Your task to perform on an android device: Clear the shopping cart on target.com. Add macbook pro 13 inch to the cart on target.com Image 0: 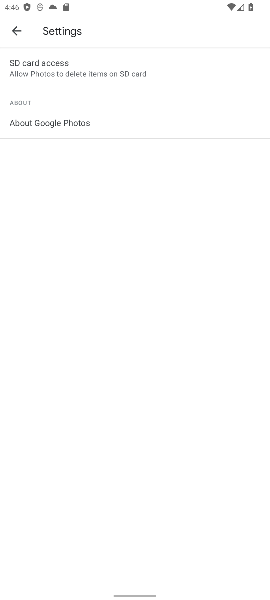
Step 0: press home button
Your task to perform on an android device: Clear the shopping cart on target.com. Add macbook pro 13 inch to the cart on target.com Image 1: 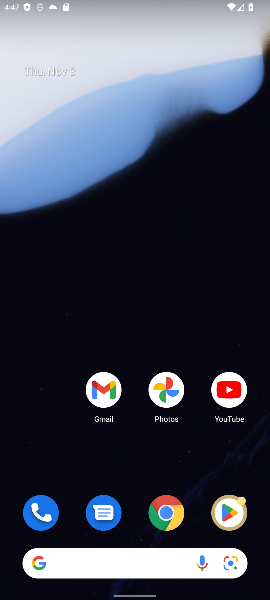
Step 1: click (163, 510)
Your task to perform on an android device: Clear the shopping cart on target.com. Add macbook pro 13 inch to the cart on target.com Image 2: 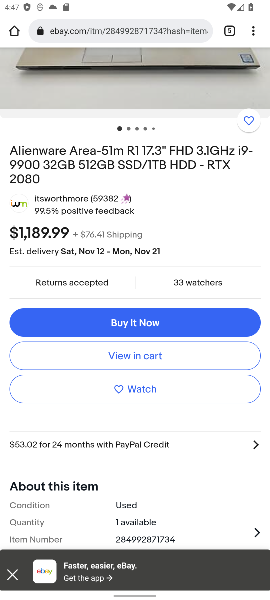
Step 2: click (230, 31)
Your task to perform on an android device: Clear the shopping cart on target.com. Add macbook pro 13 inch to the cart on target.com Image 3: 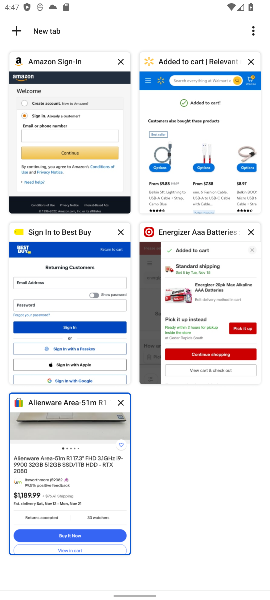
Step 3: click (225, 285)
Your task to perform on an android device: Clear the shopping cart on target.com. Add macbook pro 13 inch to the cart on target.com Image 4: 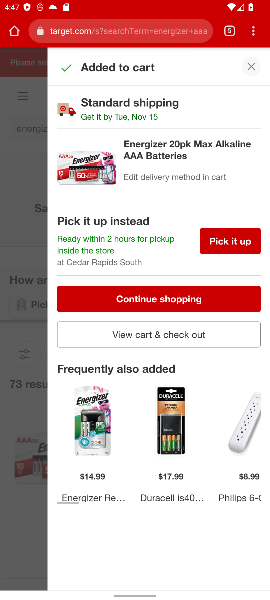
Step 4: click (254, 62)
Your task to perform on an android device: Clear the shopping cart on target.com. Add macbook pro 13 inch to the cart on target.com Image 5: 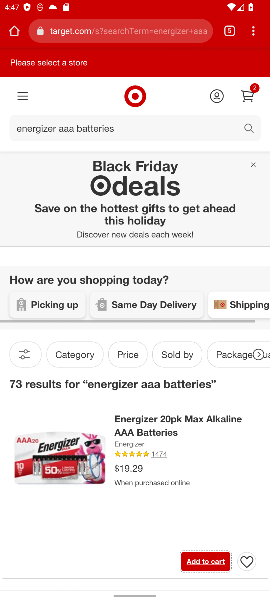
Step 5: click (118, 129)
Your task to perform on an android device: Clear the shopping cart on target.com. Add macbook pro 13 inch to the cart on target.com Image 6: 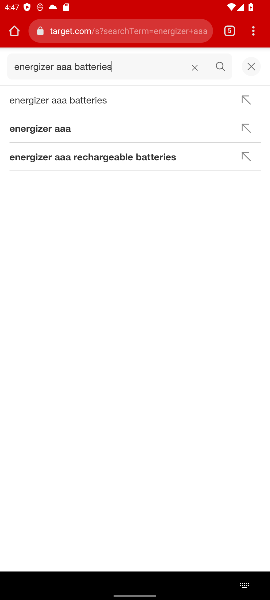
Step 6: click (197, 70)
Your task to perform on an android device: Clear the shopping cart on target.com. Add macbook pro 13 inch to the cart on target.com Image 7: 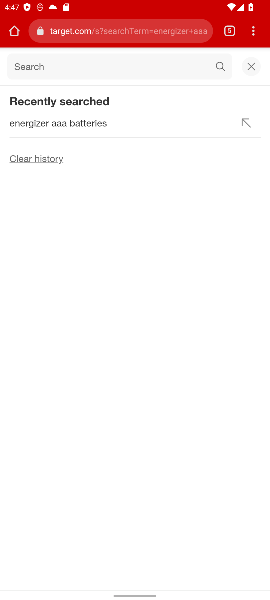
Step 7: type "macbook pro 13 inch"
Your task to perform on an android device: Clear the shopping cart on target.com. Add macbook pro 13 inch to the cart on target.com Image 8: 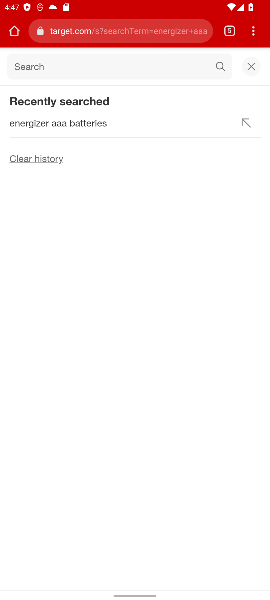
Step 8: click (23, 62)
Your task to perform on an android device: Clear the shopping cart on target.com. Add macbook pro 13 inch to the cart on target.com Image 9: 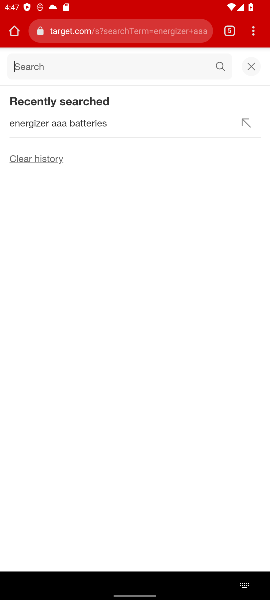
Step 9: type "macbook pro 13 inch"
Your task to perform on an android device: Clear the shopping cart on target.com. Add macbook pro 13 inch to the cart on target.com Image 10: 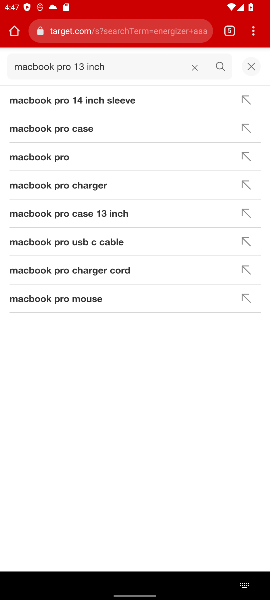
Step 10: click (108, 97)
Your task to perform on an android device: Clear the shopping cart on target.com. Add macbook pro 13 inch to the cart on target.com Image 11: 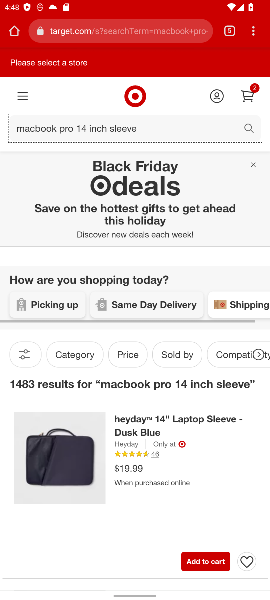
Step 11: click (199, 558)
Your task to perform on an android device: Clear the shopping cart on target.com. Add macbook pro 13 inch to the cart on target.com Image 12: 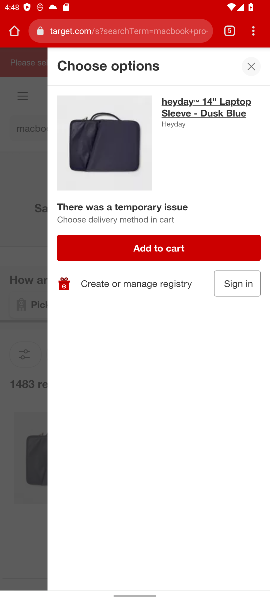
Step 12: task complete